Your task to perform on an android device: Go to calendar. Show me events next week Image 0: 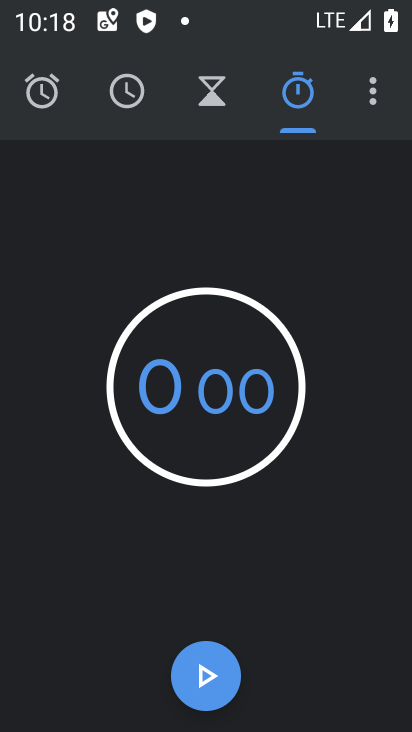
Step 0: press home button
Your task to perform on an android device: Go to calendar. Show me events next week Image 1: 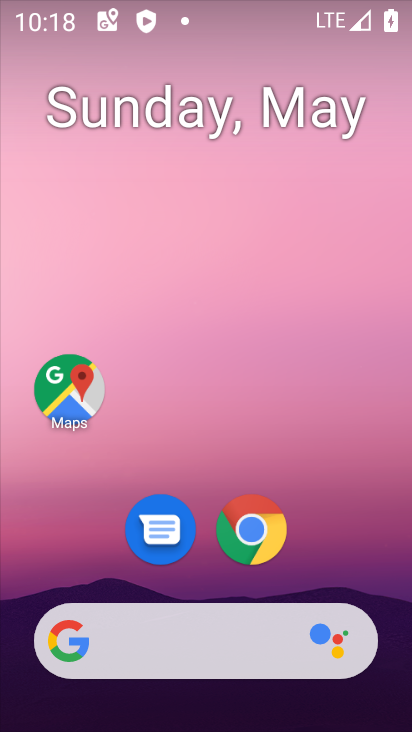
Step 1: drag from (348, 558) to (251, 73)
Your task to perform on an android device: Go to calendar. Show me events next week Image 2: 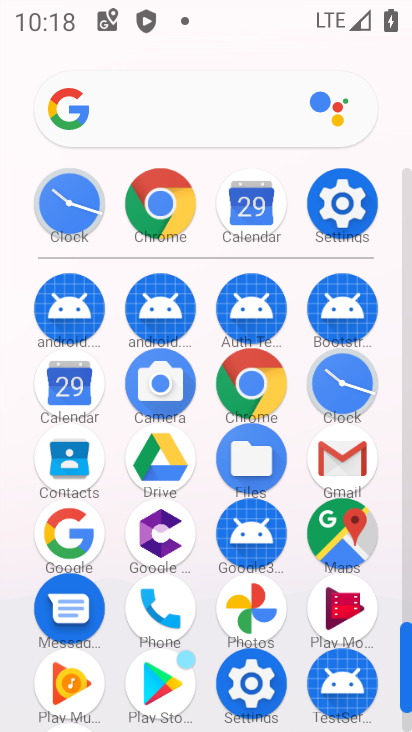
Step 2: click (87, 381)
Your task to perform on an android device: Go to calendar. Show me events next week Image 3: 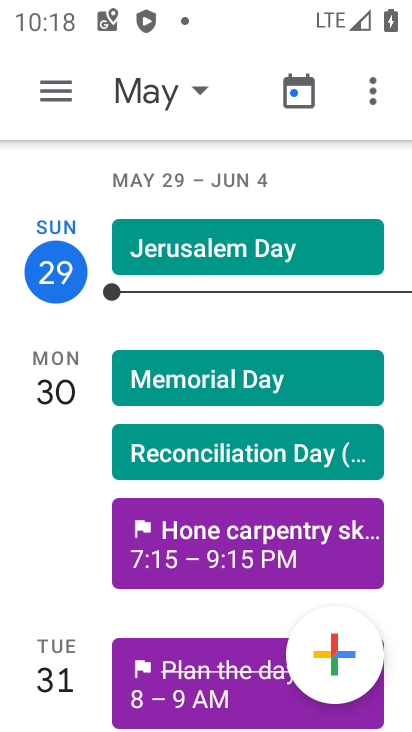
Step 3: task complete